Your task to perform on an android device: What are the best selling refrigerators at Lowes? Image 0: 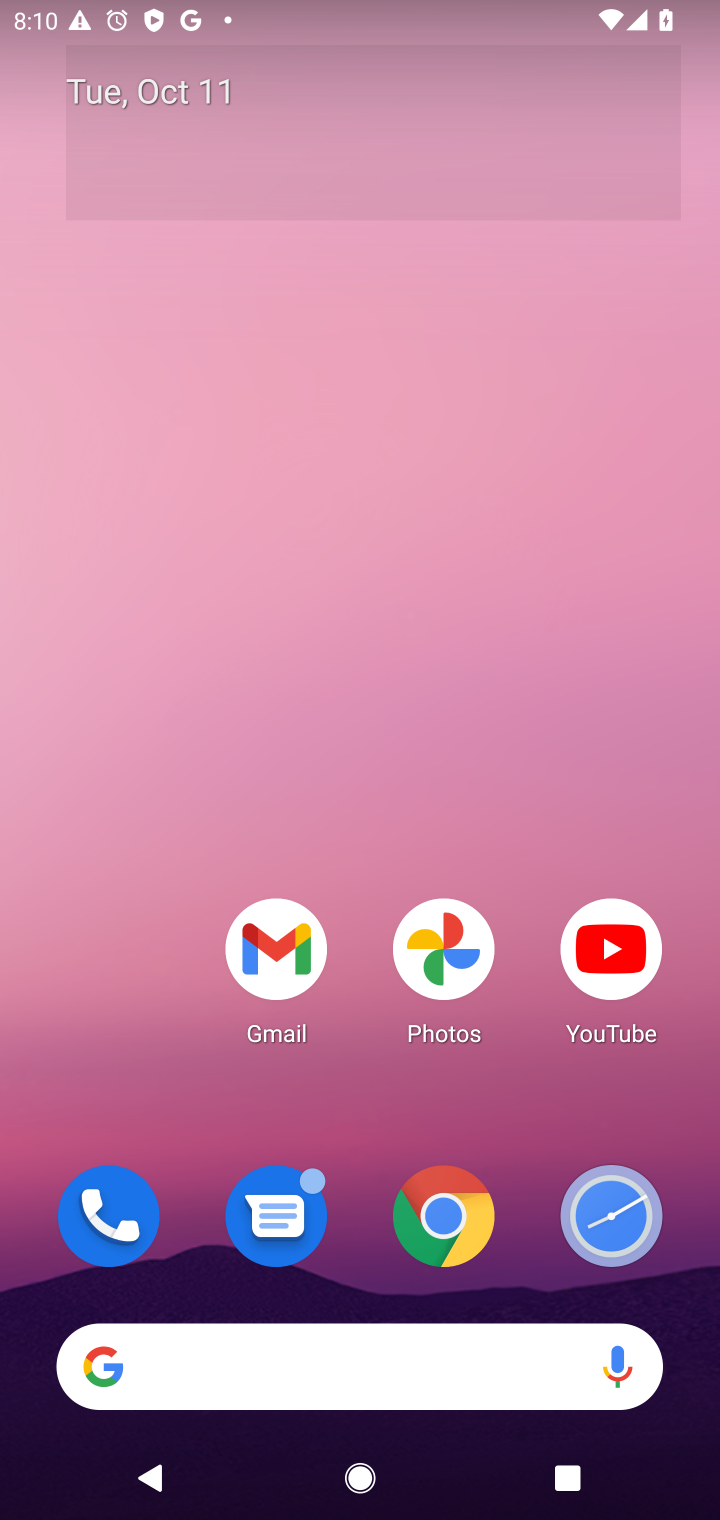
Step 0: click (449, 1260)
Your task to perform on an android device: What are the best selling refrigerators at Lowes? Image 1: 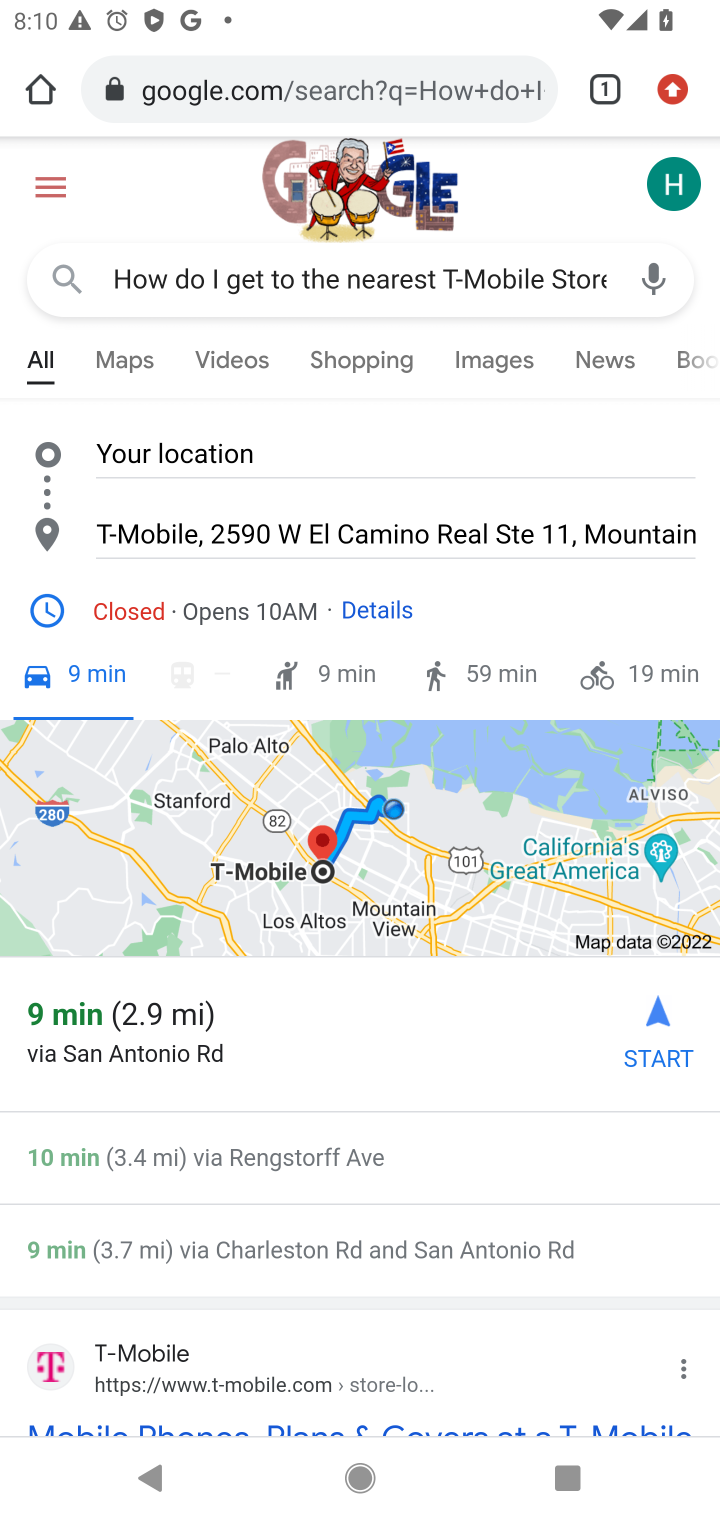
Step 1: click (421, 287)
Your task to perform on an android device: What are the best selling refrigerators at Lowes? Image 2: 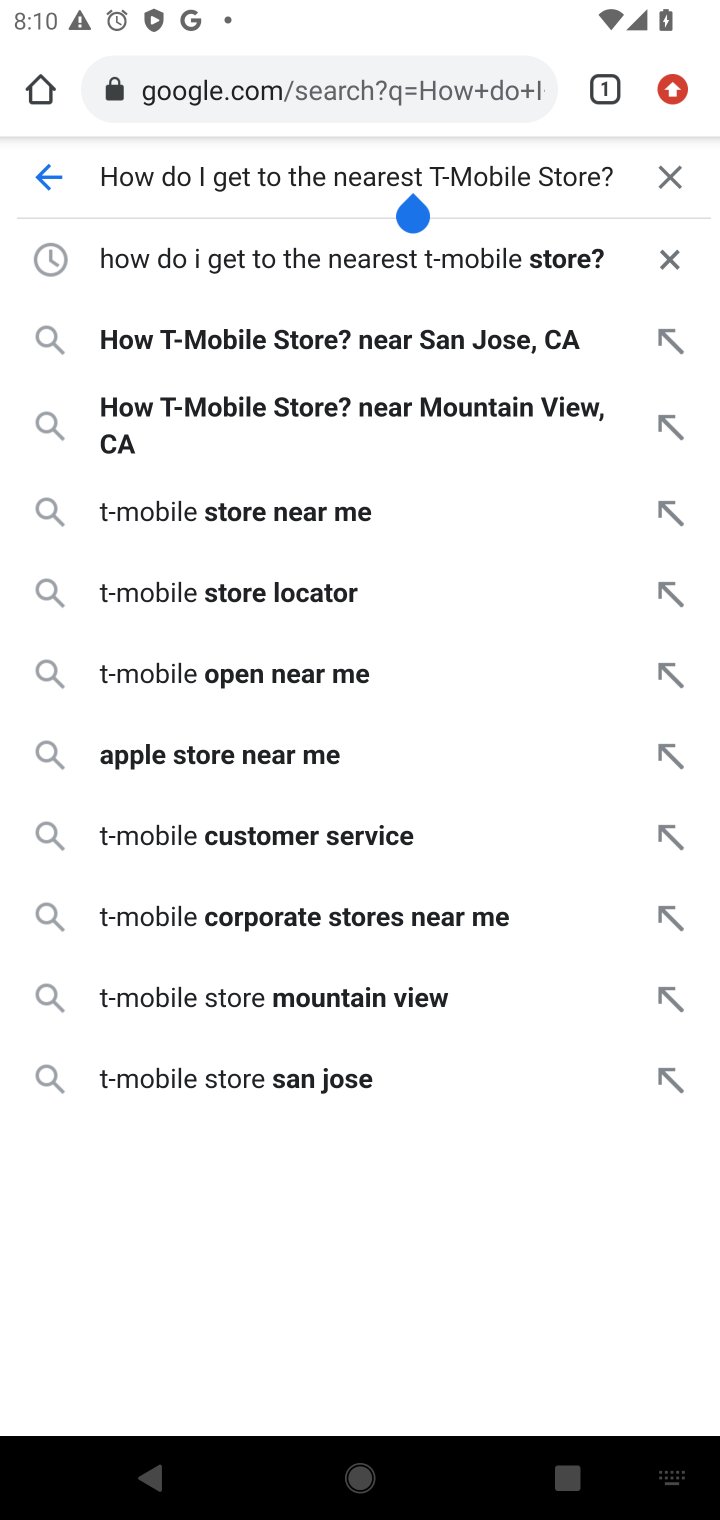
Step 2: click (648, 176)
Your task to perform on an android device: What are the best selling refrigerators at Lowes? Image 3: 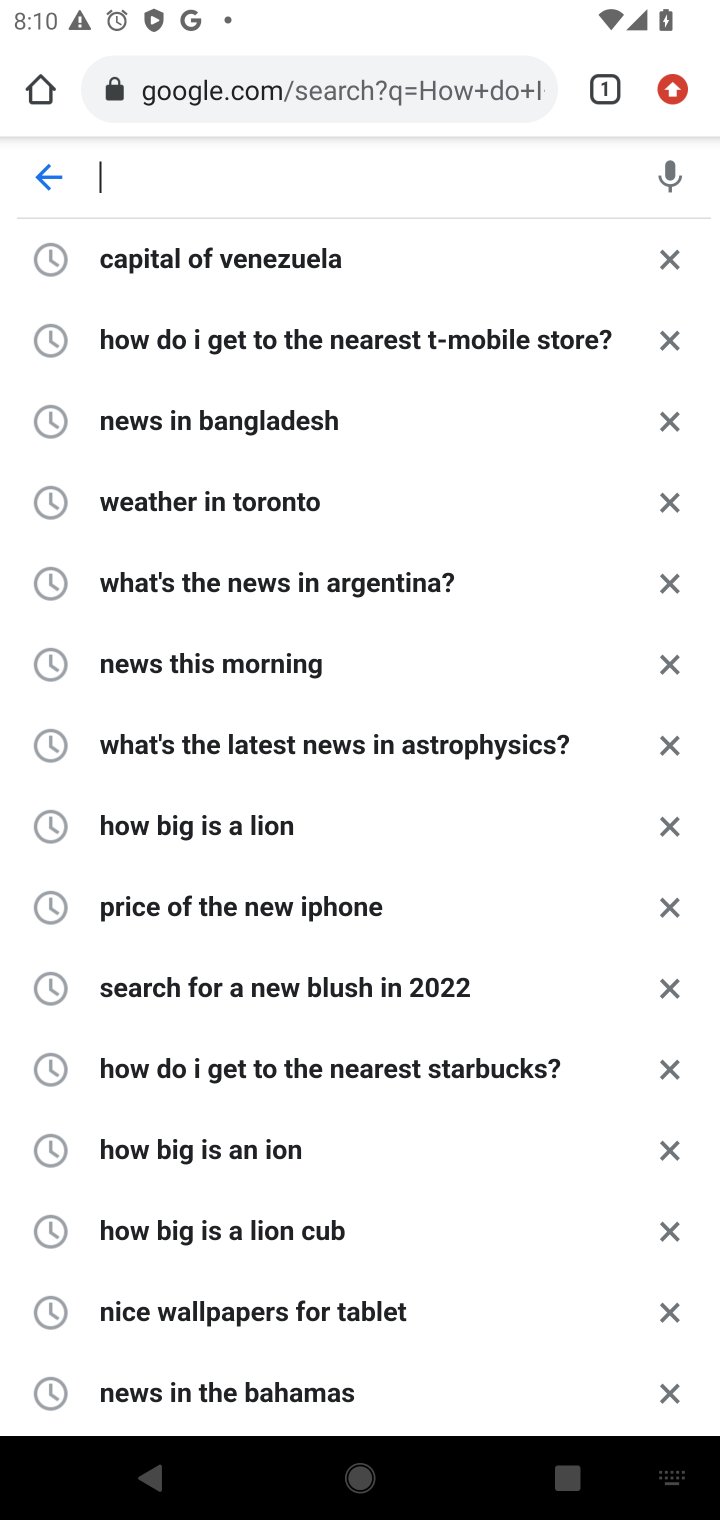
Step 3: type "What are the best selling refrigerators at Lowes?"
Your task to perform on an android device: What are the best selling refrigerators at Lowes? Image 4: 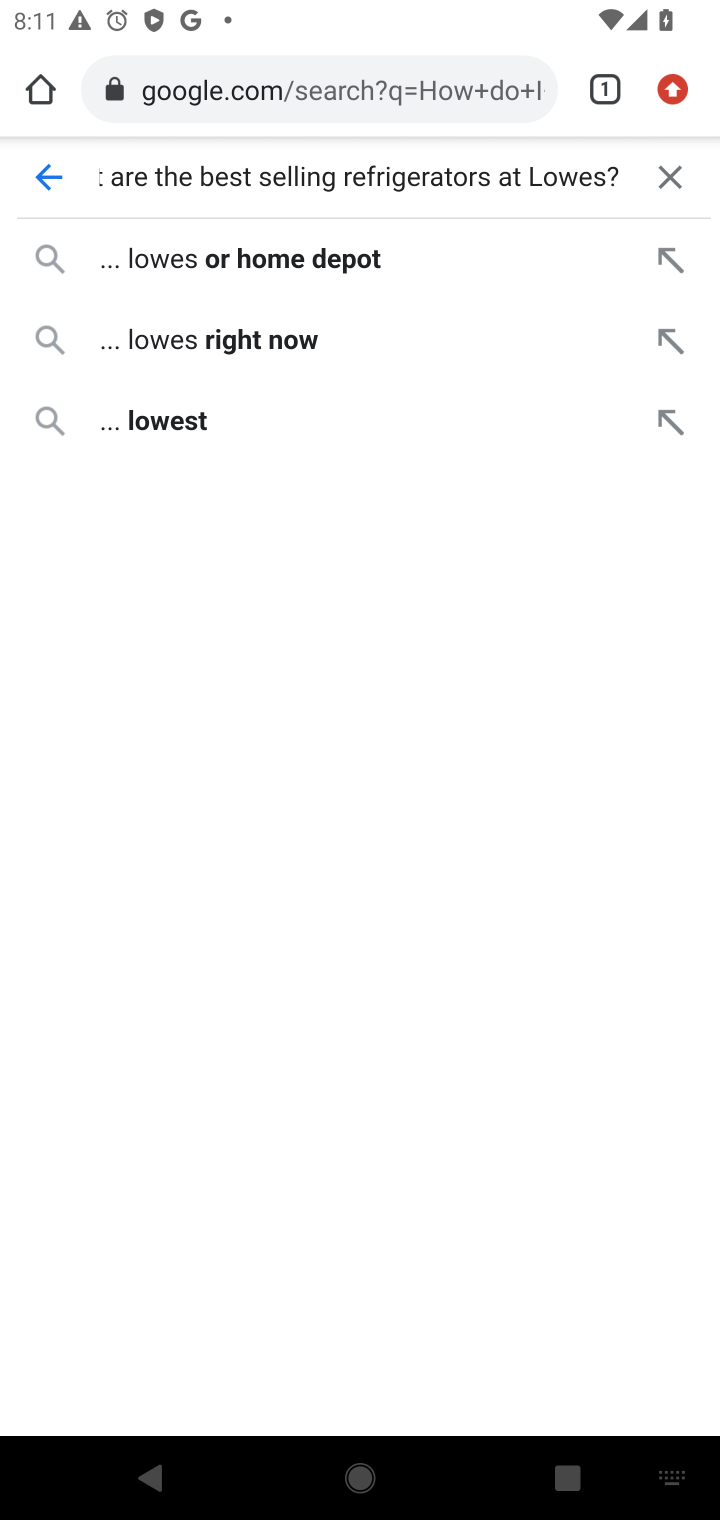
Step 4: task complete